Your task to perform on an android device: turn on improve location accuracy Image 0: 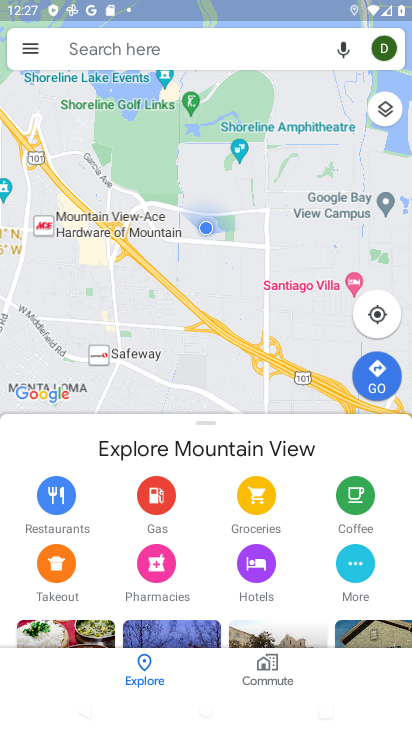
Step 0: press home button
Your task to perform on an android device: turn on improve location accuracy Image 1: 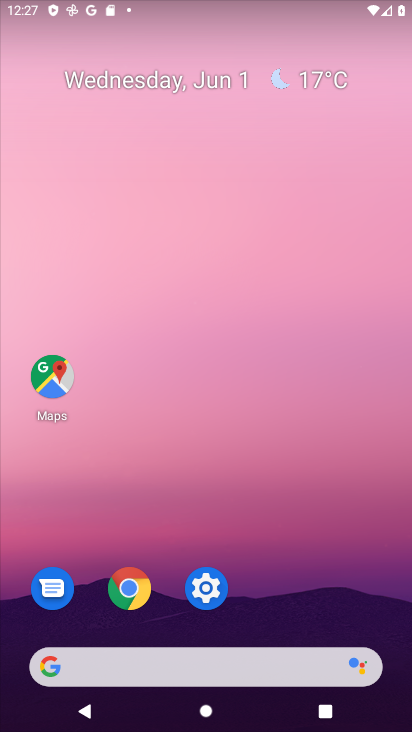
Step 1: click (184, 586)
Your task to perform on an android device: turn on improve location accuracy Image 2: 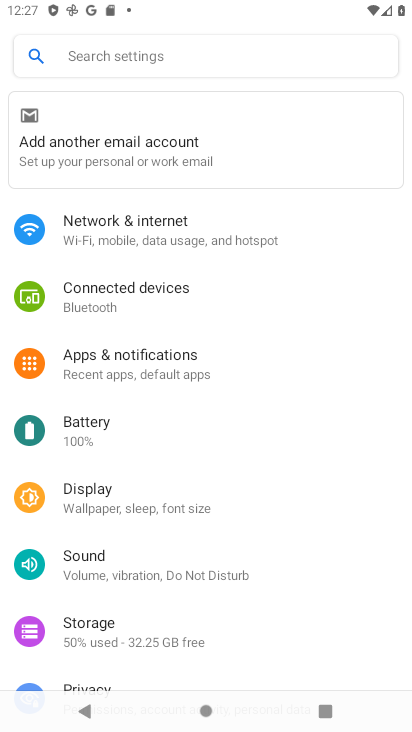
Step 2: drag from (109, 588) to (120, 502)
Your task to perform on an android device: turn on improve location accuracy Image 3: 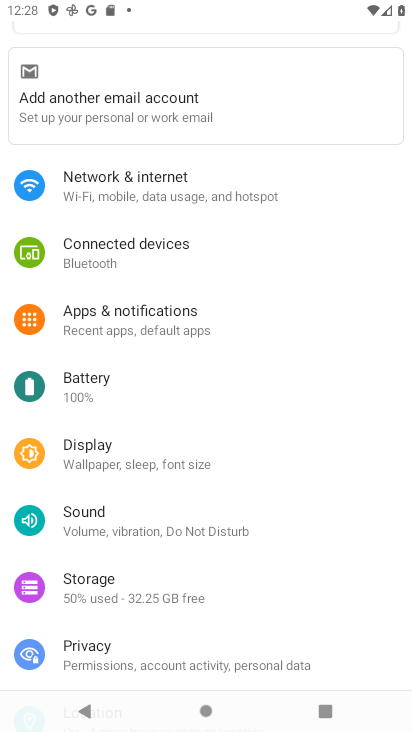
Step 3: drag from (130, 586) to (146, 515)
Your task to perform on an android device: turn on improve location accuracy Image 4: 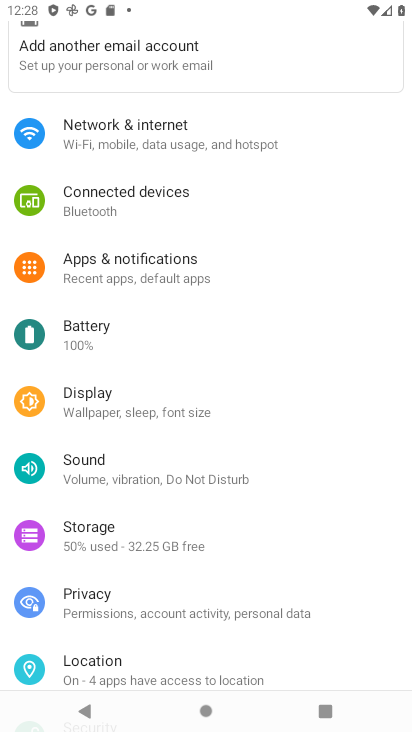
Step 4: click (97, 673)
Your task to perform on an android device: turn on improve location accuracy Image 5: 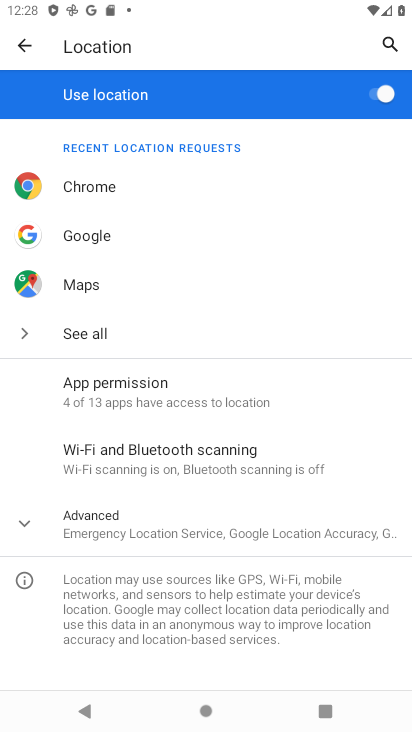
Step 5: click (70, 525)
Your task to perform on an android device: turn on improve location accuracy Image 6: 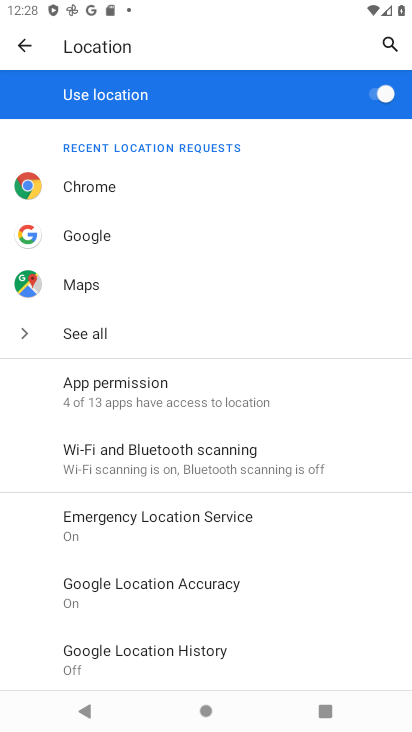
Step 6: click (149, 582)
Your task to perform on an android device: turn on improve location accuracy Image 7: 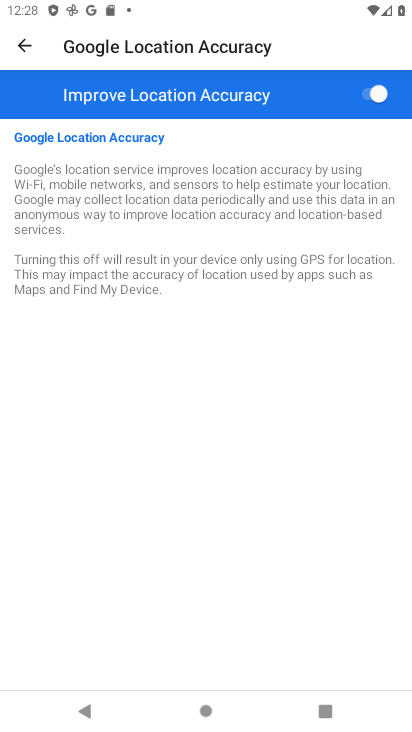
Step 7: task complete